Your task to perform on an android device: Search for hotels in Mexico city Image 0: 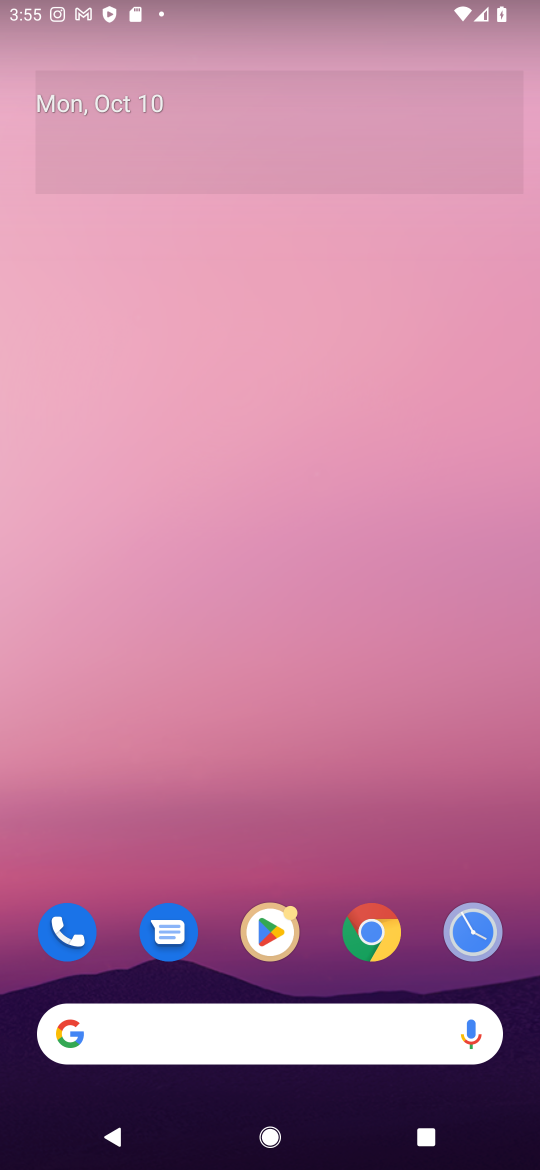
Step 0: press home button
Your task to perform on an android device: Search for hotels in Mexico city Image 1: 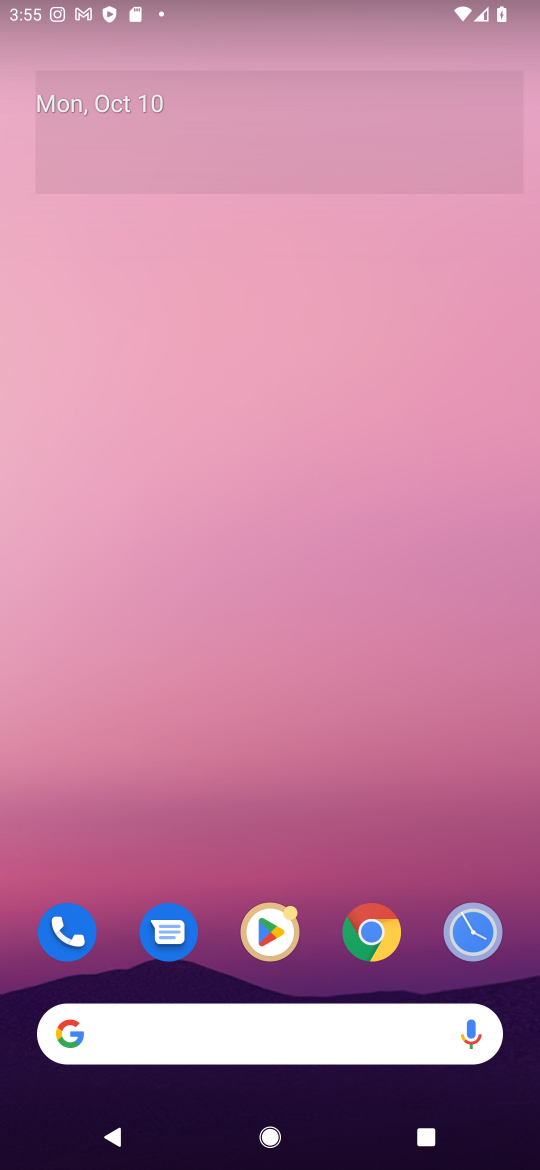
Step 1: click (275, 1039)
Your task to perform on an android device: Search for hotels in Mexico city Image 2: 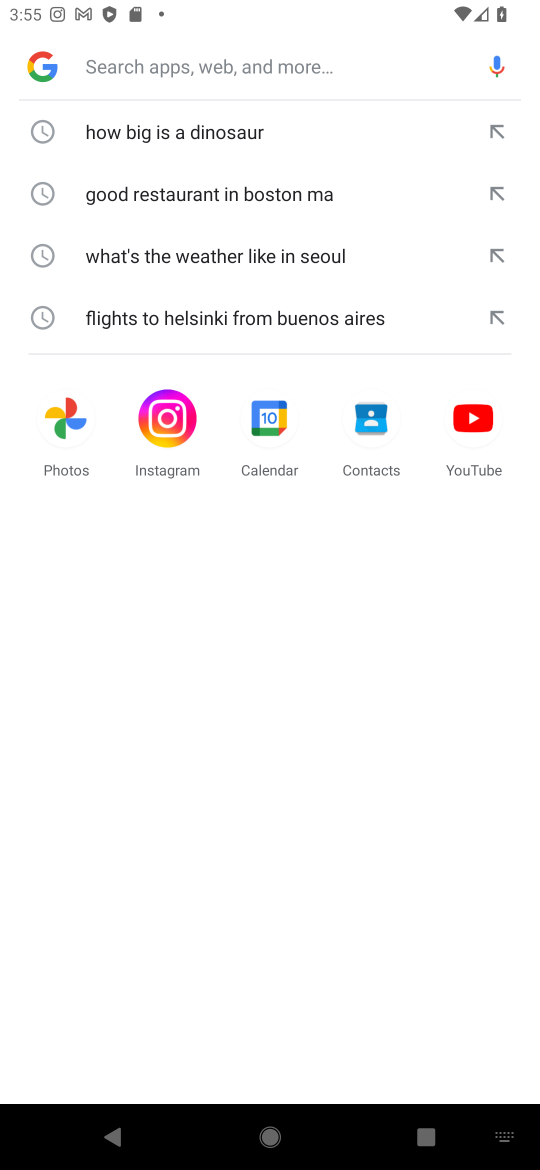
Step 2: type " hotels in Mexico city"
Your task to perform on an android device: Search for hotels in Mexico city Image 3: 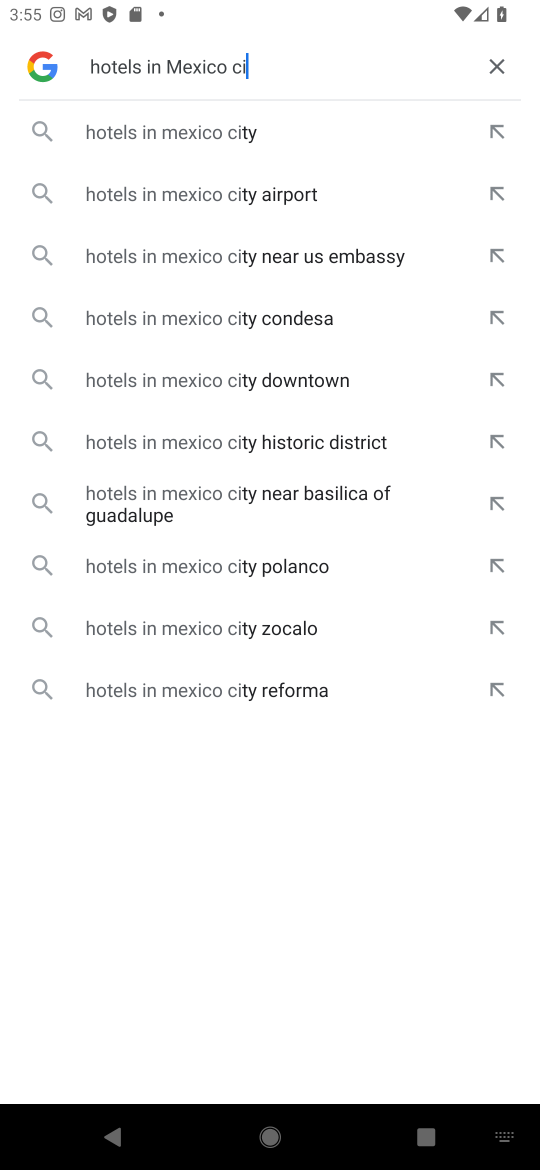
Step 3: press enter
Your task to perform on an android device: Search for hotels in Mexico city Image 4: 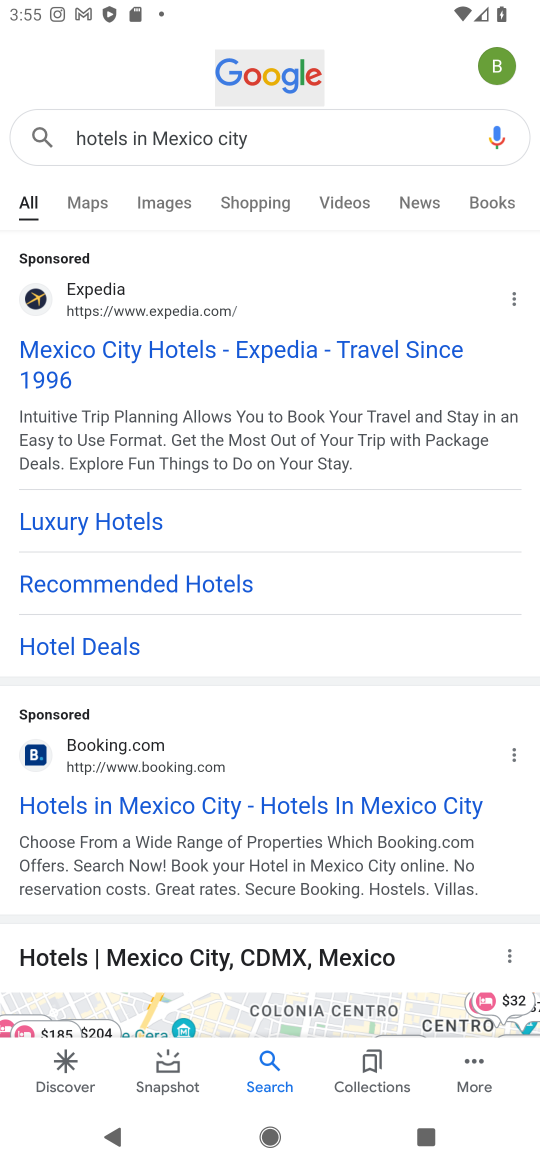
Step 4: task complete